Your task to perform on an android device: Open calendar and show me the third week of next month Image 0: 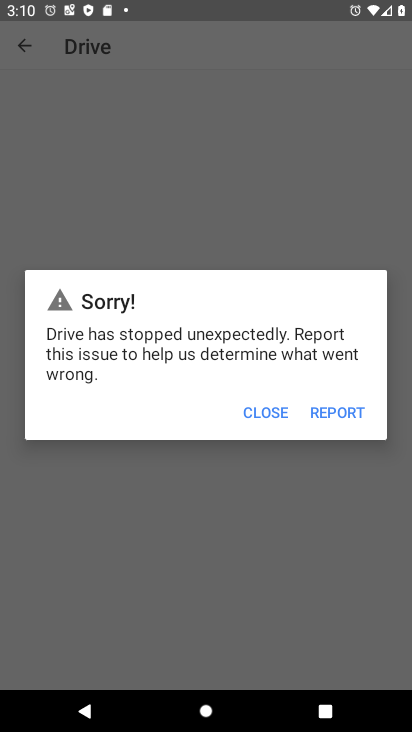
Step 0: press back button
Your task to perform on an android device: Open calendar and show me the third week of next month Image 1: 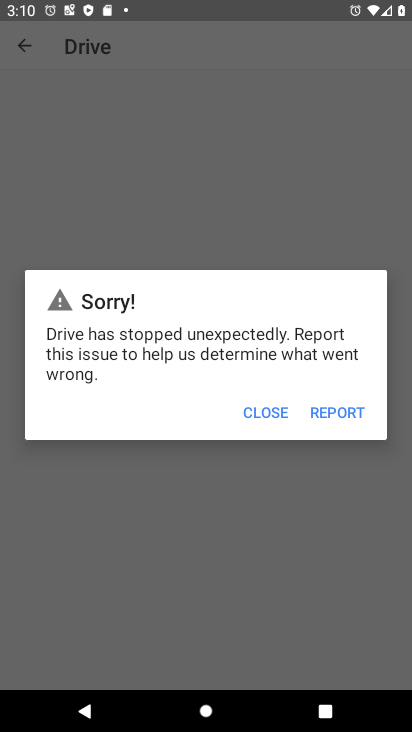
Step 1: press back button
Your task to perform on an android device: Open calendar and show me the third week of next month Image 2: 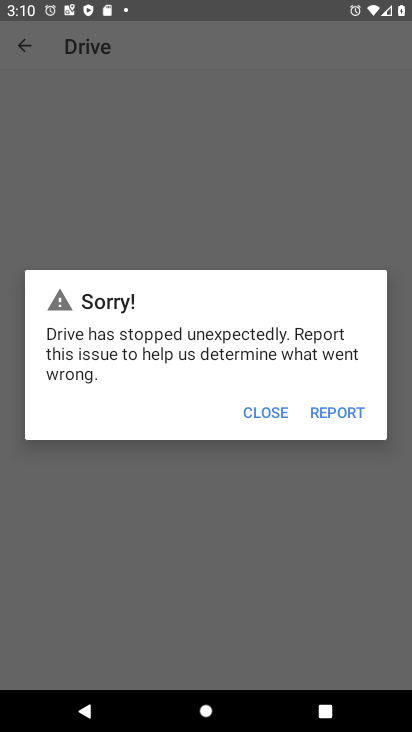
Step 2: press back button
Your task to perform on an android device: Open calendar and show me the third week of next month Image 3: 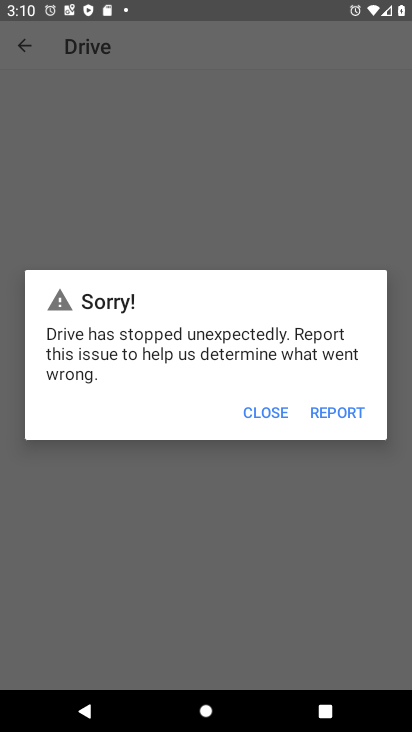
Step 3: press home button
Your task to perform on an android device: Open calendar and show me the third week of next month Image 4: 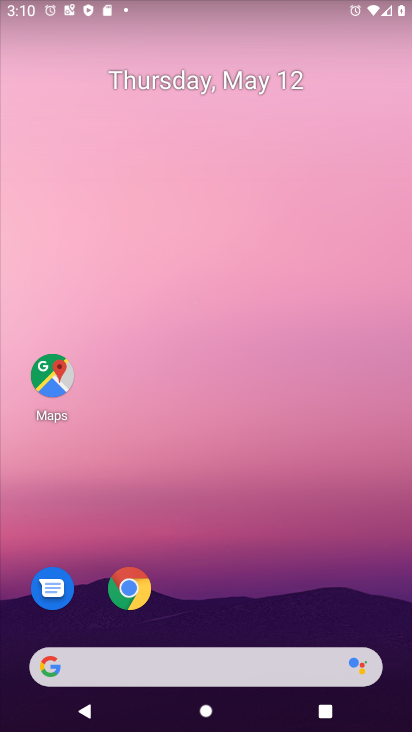
Step 4: drag from (294, 610) to (228, 33)
Your task to perform on an android device: Open calendar and show me the third week of next month Image 5: 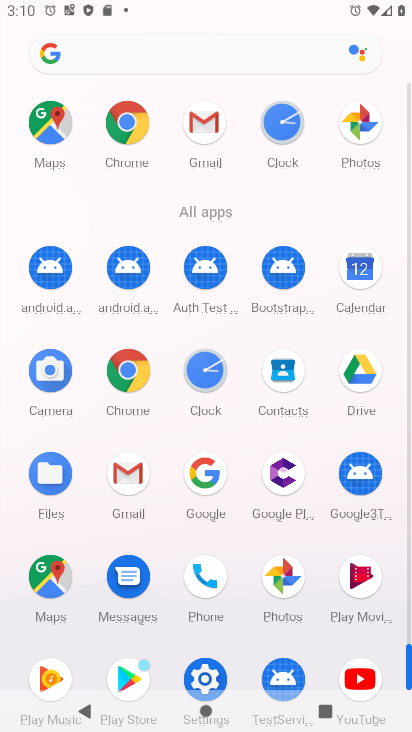
Step 5: click (356, 265)
Your task to perform on an android device: Open calendar and show me the third week of next month Image 6: 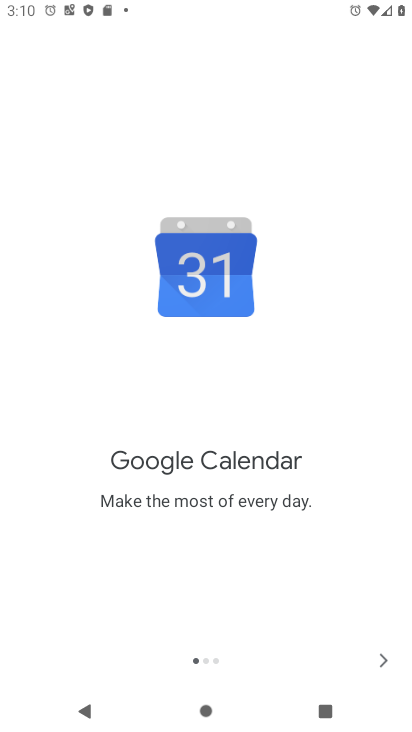
Step 6: click (381, 658)
Your task to perform on an android device: Open calendar and show me the third week of next month Image 7: 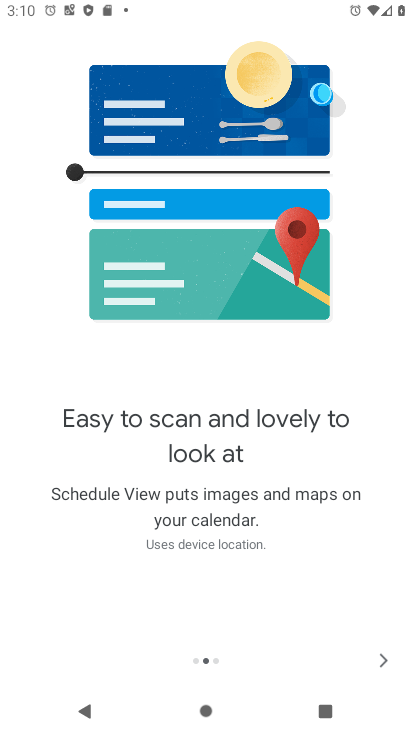
Step 7: click (379, 655)
Your task to perform on an android device: Open calendar and show me the third week of next month Image 8: 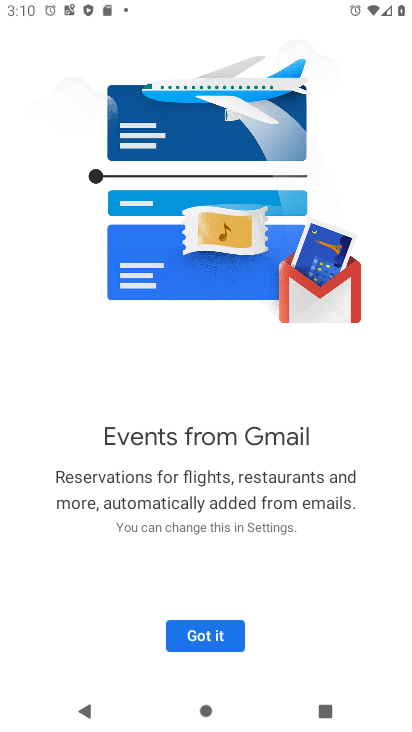
Step 8: click (221, 631)
Your task to perform on an android device: Open calendar and show me the third week of next month Image 9: 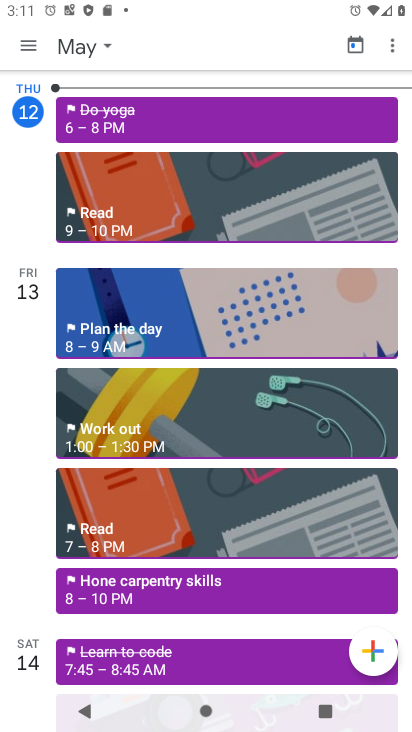
Step 9: click (84, 46)
Your task to perform on an android device: Open calendar and show me the third week of next month Image 10: 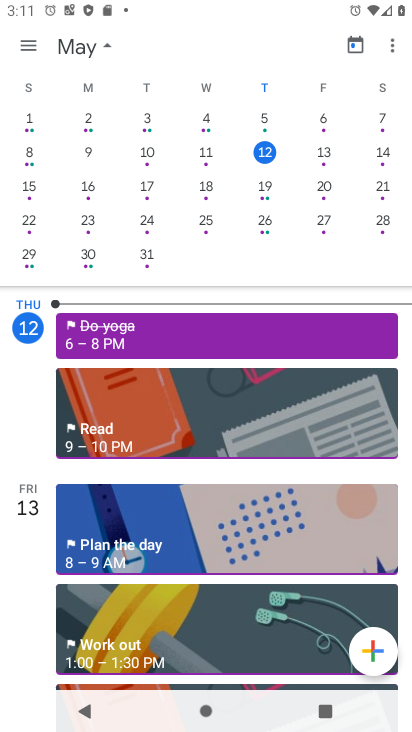
Step 10: click (84, 46)
Your task to perform on an android device: Open calendar and show me the third week of next month Image 11: 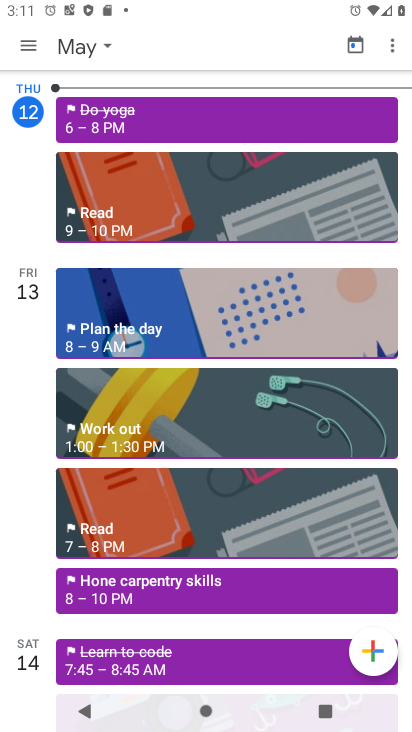
Step 11: click (77, 36)
Your task to perform on an android device: Open calendar and show me the third week of next month Image 12: 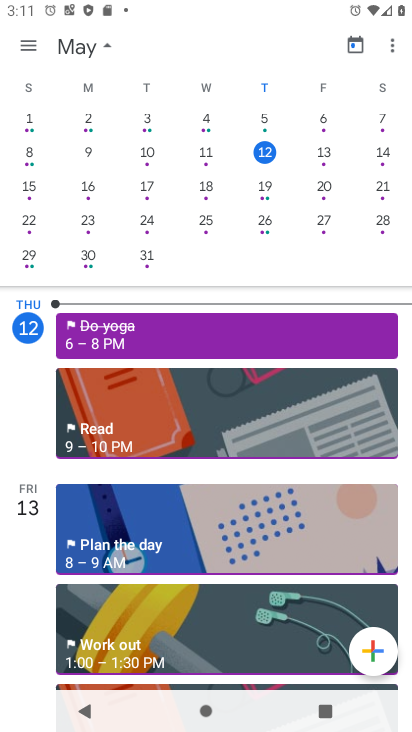
Step 12: drag from (367, 208) to (4, 113)
Your task to perform on an android device: Open calendar and show me the third week of next month Image 13: 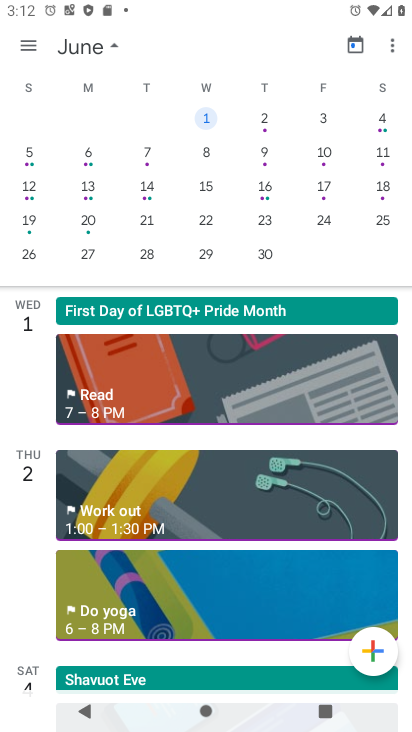
Step 13: click (32, 196)
Your task to perform on an android device: Open calendar and show me the third week of next month Image 14: 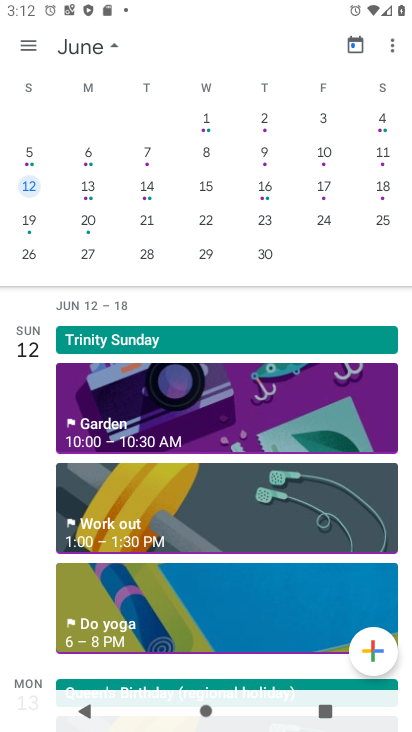
Step 14: click (27, 56)
Your task to perform on an android device: Open calendar and show me the third week of next month Image 15: 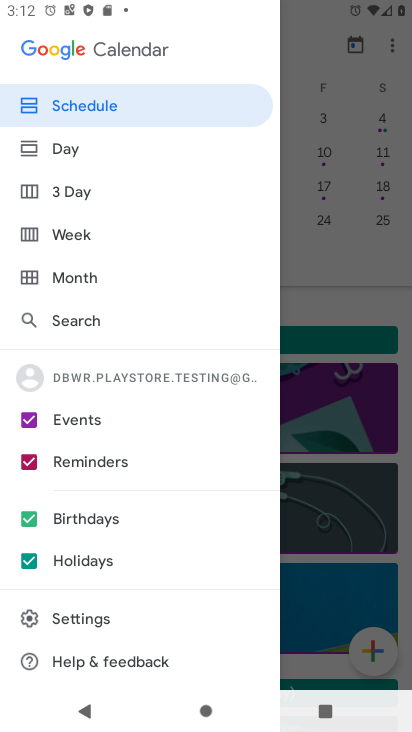
Step 15: click (71, 237)
Your task to perform on an android device: Open calendar and show me the third week of next month Image 16: 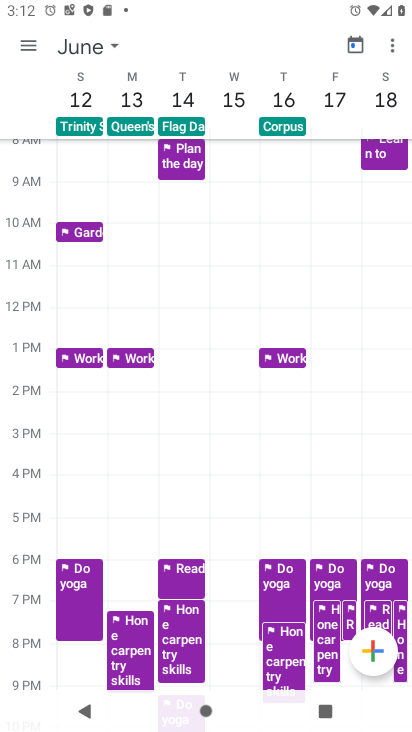
Step 16: task complete